Your task to perform on an android device: install app "Pandora - Music & Podcasts" Image 0: 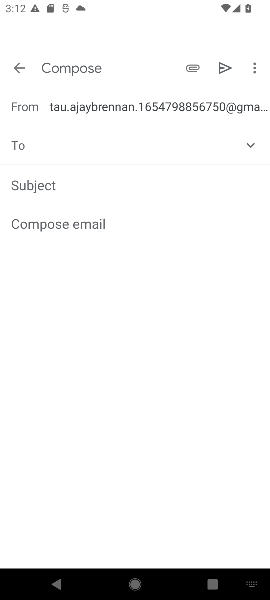
Step 0: press home button
Your task to perform on an android device: install app "Pandora - Music & Podcasts" Image 1: 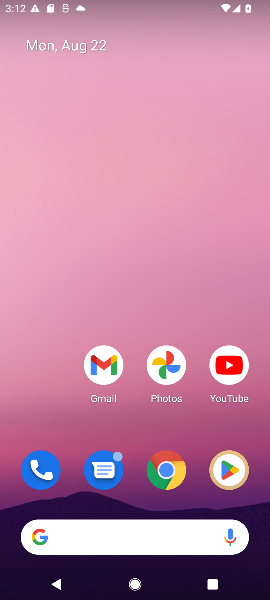
Step 1: click (230, 464)
Your task to perform on an android device: install app "Pandora - Music & Podcasts" Image 2: 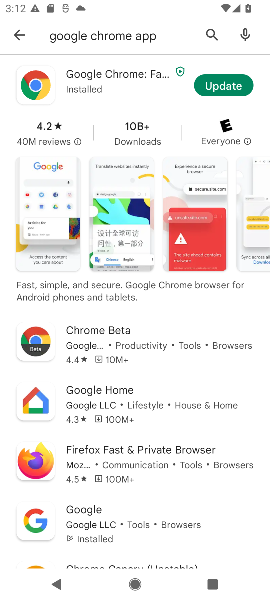
Step 2: click (11, 36)
Your task to perform on an android device: install app "Pandora - Music & Podcasts" Image 3: 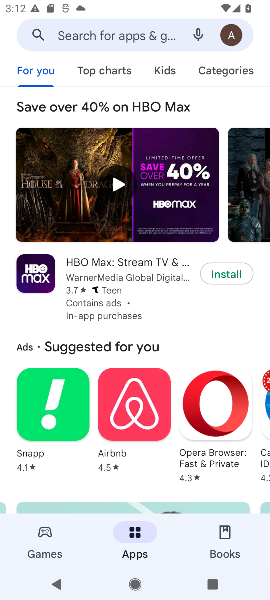
Step 3: click (100, 29)
Your task to perform on an android device: install app "Pandora - Music & Podcasts" Image 4: 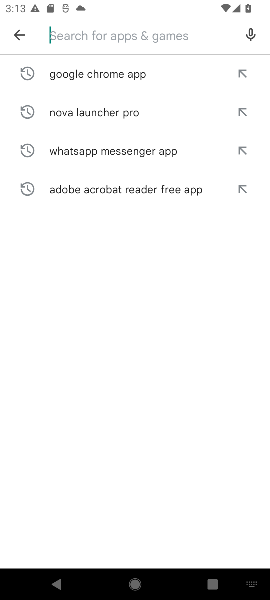
Step 4: type "Pandora  "
Your task to perform on an android device: install app "Pandora - Music & Podcasts" Image 5: 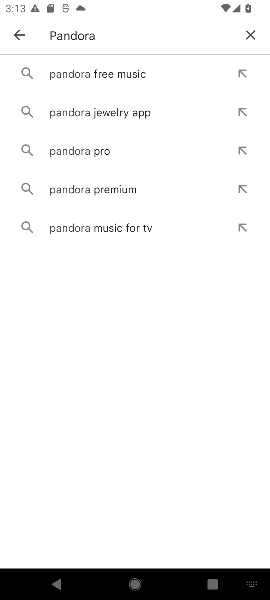
Step 5: click (104, 69)
Your task to perform on an android device: install app "Pandora - Music & Podcasts" Image 6: 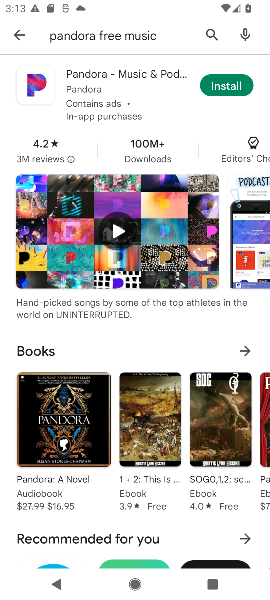
Step 6: click (241, 90)
Your task to perform on an android device: install app "Pandora - Music & Podcasts" Image 7: 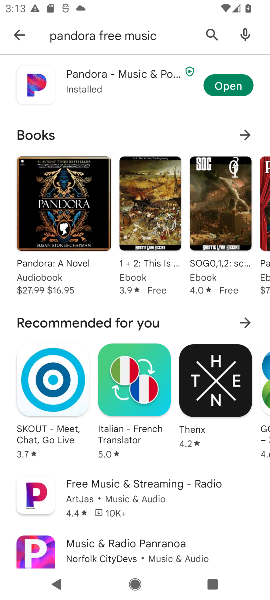
Step 7: click (239, 87)
Your task to perform on an android device: install app "Pandora - Music & Podcasts" Image 8: 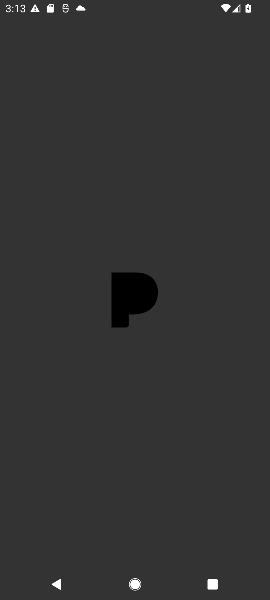
Step 8: task complete